Your task to perform on an android device: Clear the shopping cart on bestbuy.com. Search for "rayovac triple a" on bestbuy.com, select the first entry, and add it to the cart. Image 0: 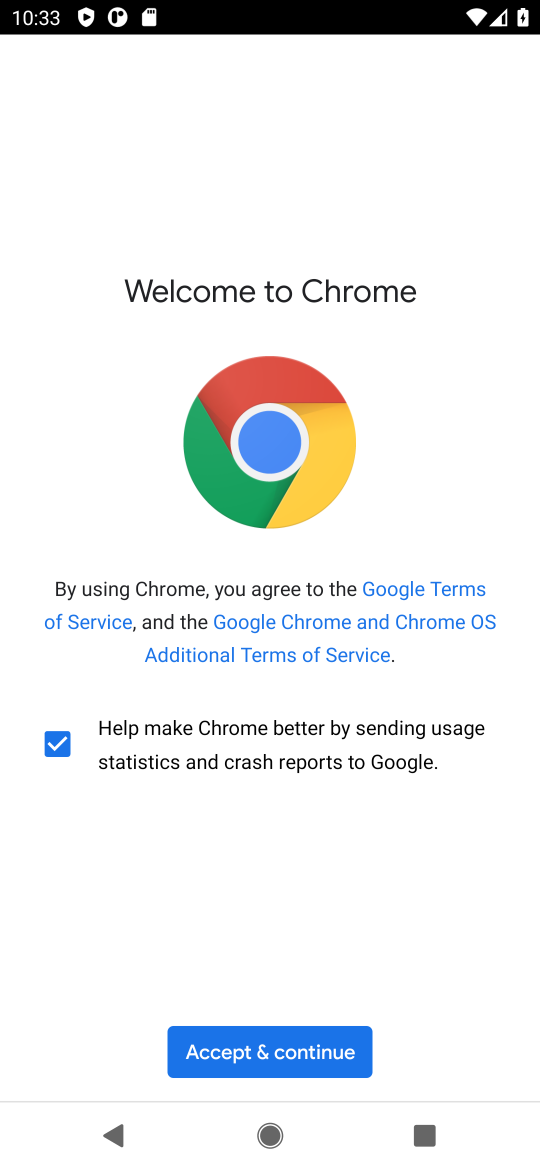
Step 0: press home button
Your task to perform on an android device: Clear the shopping cart on bestbuy.com. Search for "rayovac triple a" on bestbuy.com, select the first entry, and add it to the cart. Image 1: 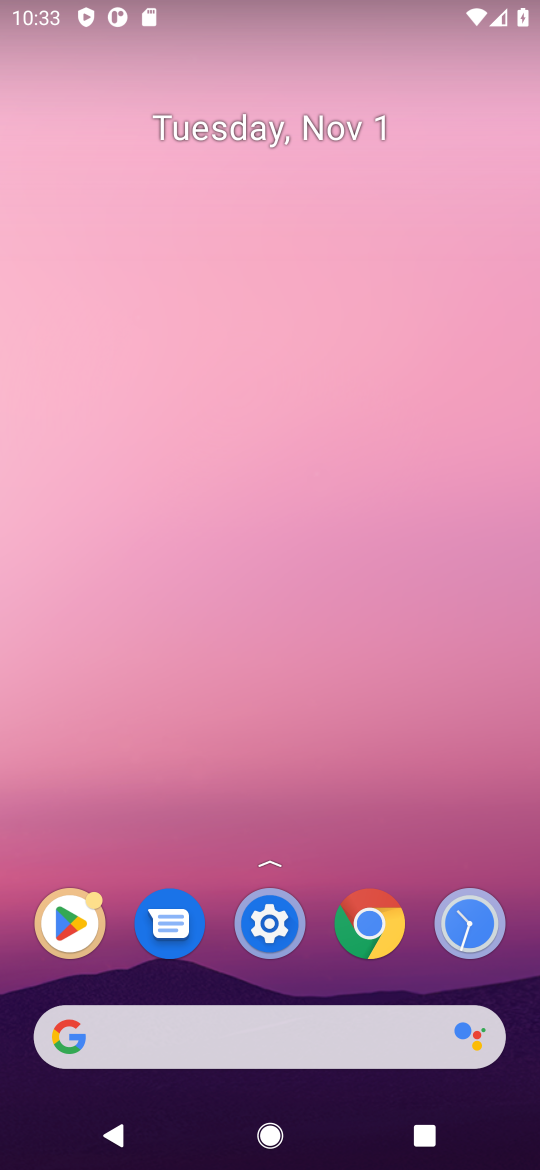
Step 1: click (373, 957)
Your task to perform on an android device: Clear the shopping cart on bestbuy.com. Search for "rayovac triple a" on bestbuy.com, select the first entry, and add it to the cart. Image 2: 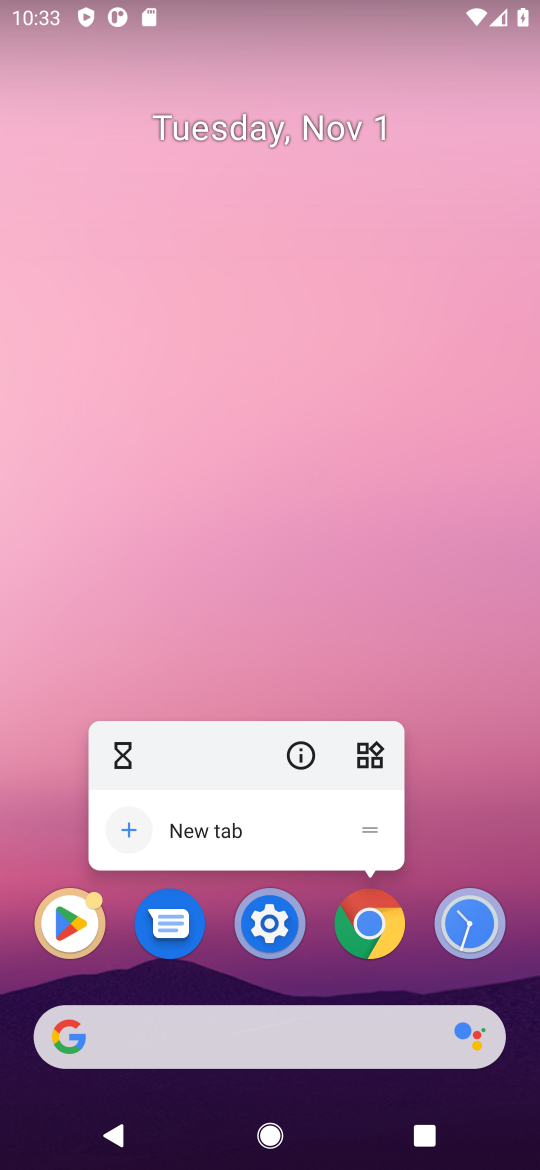
Step 2: click (381, 918)
Your task to perform on an android device: Clear the shopping cart on bestbuy.com. Search for "rayovac triple a" on bestbuy.com, select the first entry, and add it to the cart. Image 3: 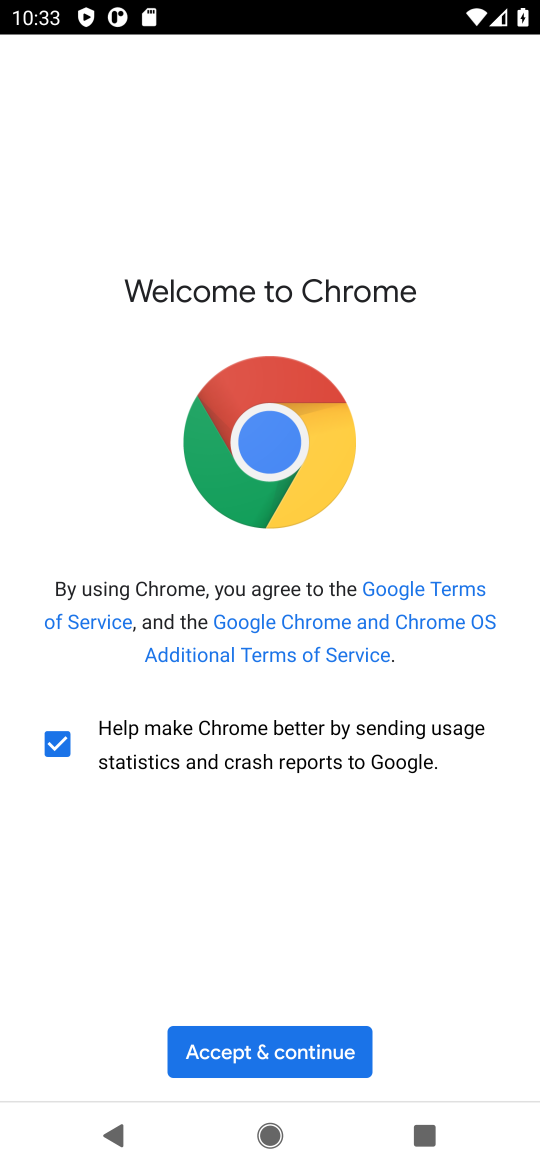
Step 3: click (287, 1038)
Your task to perform on an android device: Clear the shopping cart on bestbuy.com. Search for "rayovac triple a" on bestbuy.com, select the first entry, and add it to the cart. Image 4: 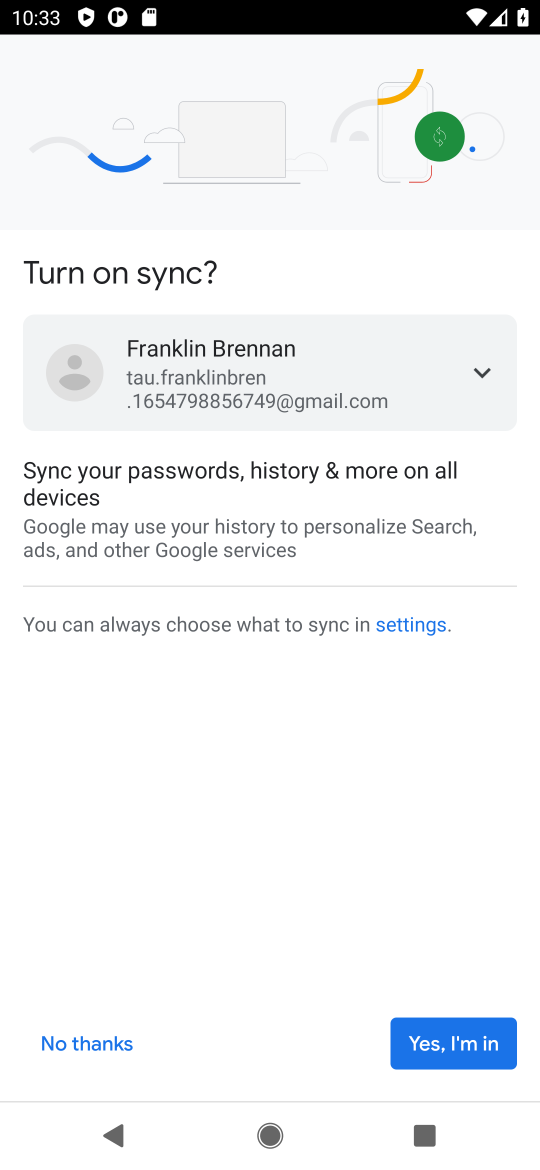
Step 4: click (412, 1040)
Your task to perform on an android device: Clear the shopping cart on bestbuy.com. Search for "rayovac triple a" on bestbuy.com, select the first entry, and add it to the cart. Image 5: 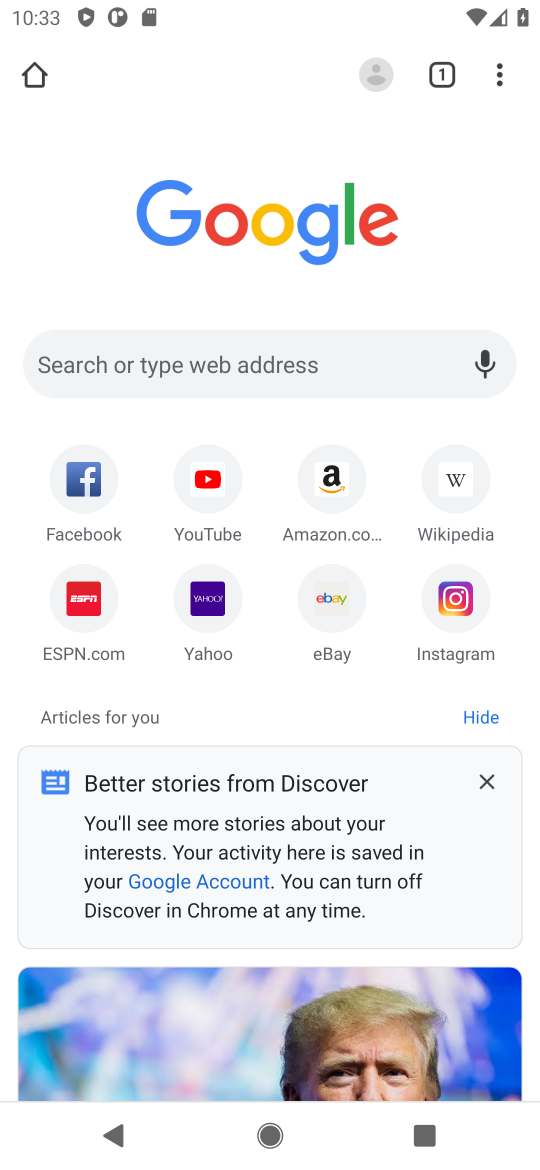
Step 5: click (294, 366)
Your task to perform on an android device: Clear the shopping cart on bestbuy.com. Search for "rayovac triple a" on bestbuy.com, select the first entry, and add it to the cart. Image 6: 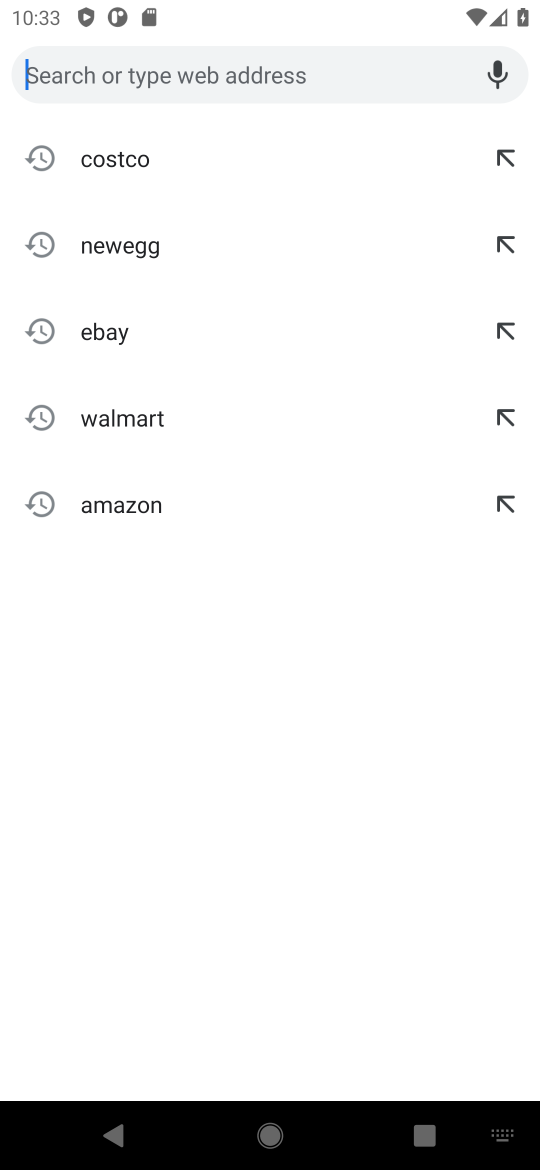
Step 6: type "bestbuy.com"
Your task to perform on an android device: Clear the shopping cart on bestbuy.com. Search for "rayovac triple a" on bestbuy.com, select the first entry, and add it to the cart. Image 7: 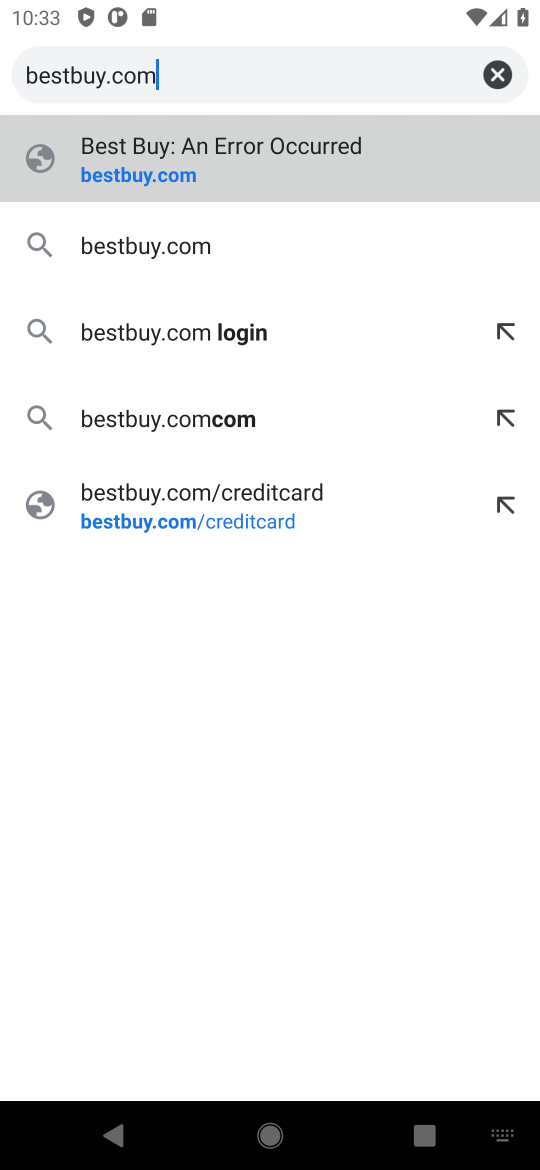
Step 7: click (237, 134)
Your task to perform on an android device: Clear the shopping cart on bestbuy.com. Search for "rayovac triple a" on bestbuy.com, select the first entry, and add it to the cart. Image 8: 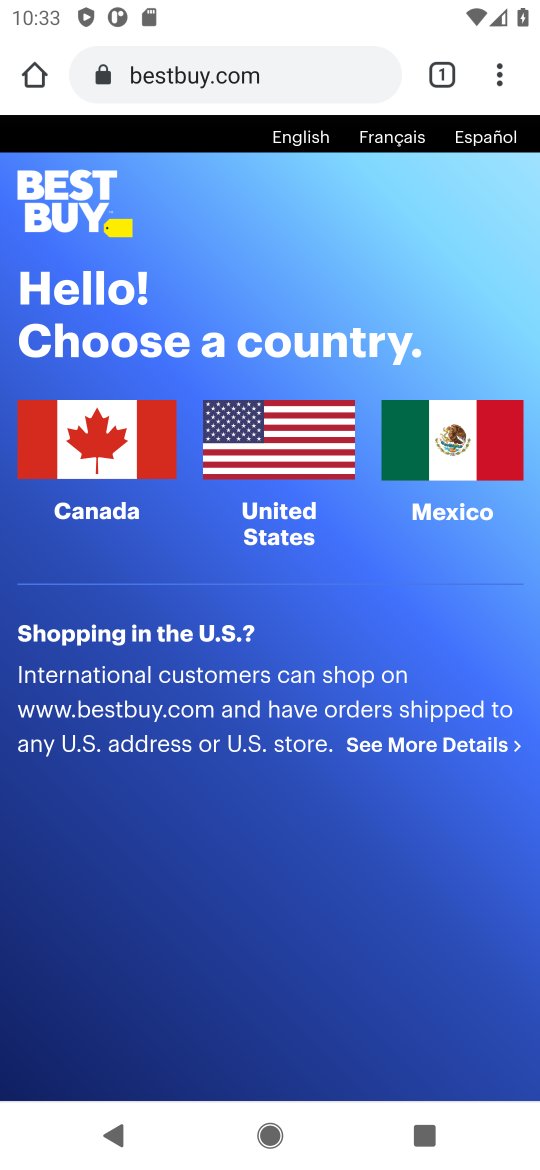
Step 8: click (281, 476)
Your task to perform on an android device: Clear the shopping cart on bestbuy.com. Search for "rayovac triple a" on bestbuy.com, select the first entry, and add it to the cart. Image 9: 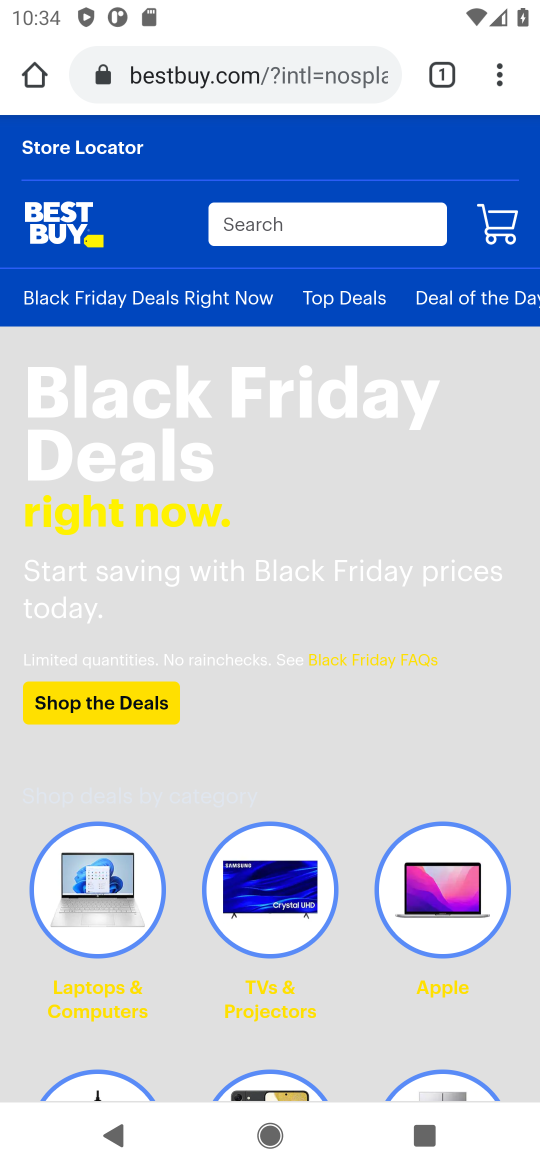
Step 9: click (318, 230)
Your task to perform on an android device: Clear the shopping cart on bestbuy.com. Search for "rayovac triple a" on bestbuy.com, select the first entry, and add it to the cart. Image 10: 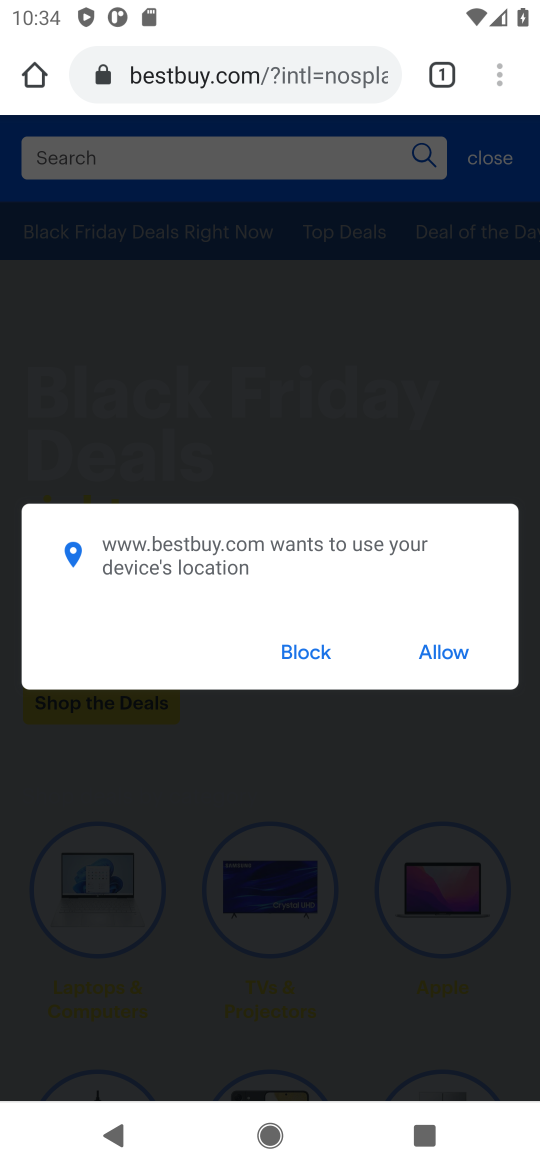
Step 10: click (333, 651)
Your task to perform on an android device: Clear the shopping cart on bestbuy.com. Search for "rayovac triple a" on bestbuy.com, select the first entry, and add it to the cart. Image 11: 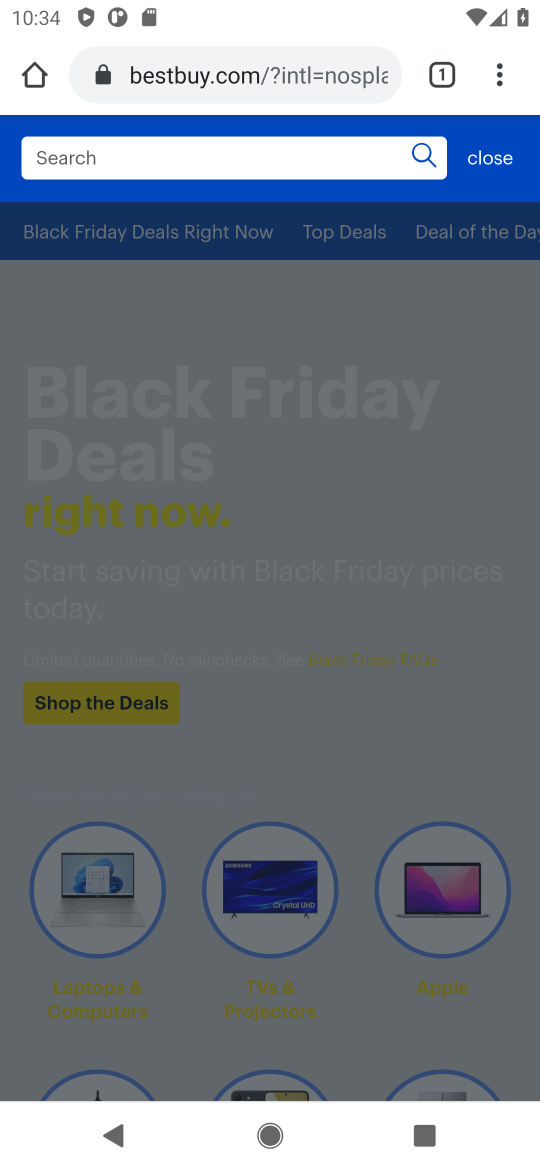
Step 11: click (290, 165)
Your task to perform on an android device: Clear the shopping cart on bestbuy.com. Search for "rayovac triple a" on bestbuy.com, select the first entry, and add it to the cart. Image 12: 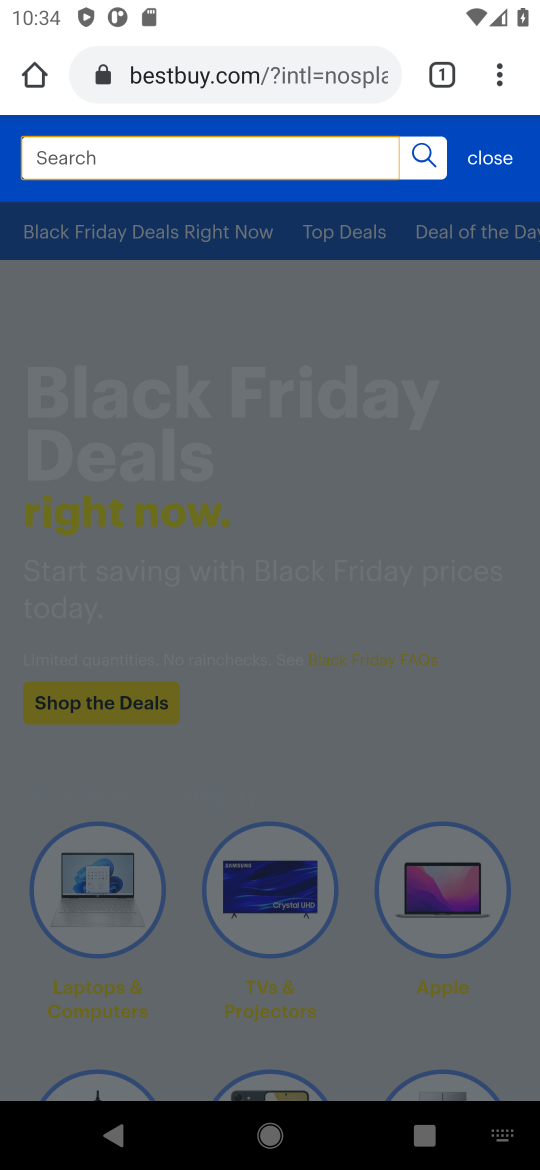
Step 12: type "rayovac triple"
Your task to perform on an android device: Clear the shopping cart on bestbuy.com. Search for "rayovac triple a" on bestbuy.com, select the first entry, and add it to the cart. Image 13: 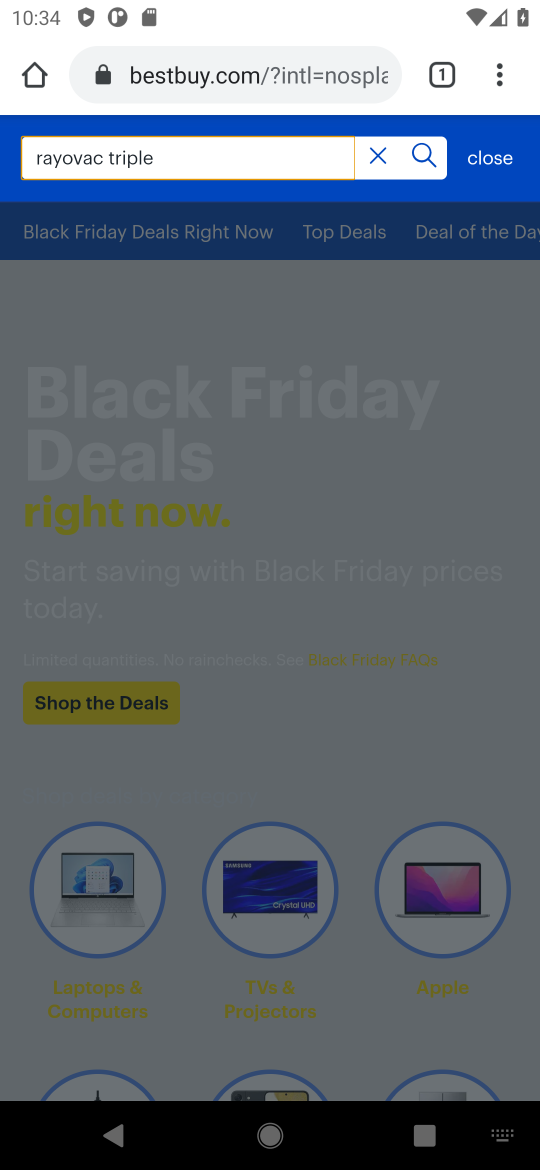
Step 13: press enter
Your task to perform on an android device: Clear the shopping cart on bestbuy.com. Search for "rayovac triple a" on bestbuy.com, select the first entry, and add it to the cart. Image 14: 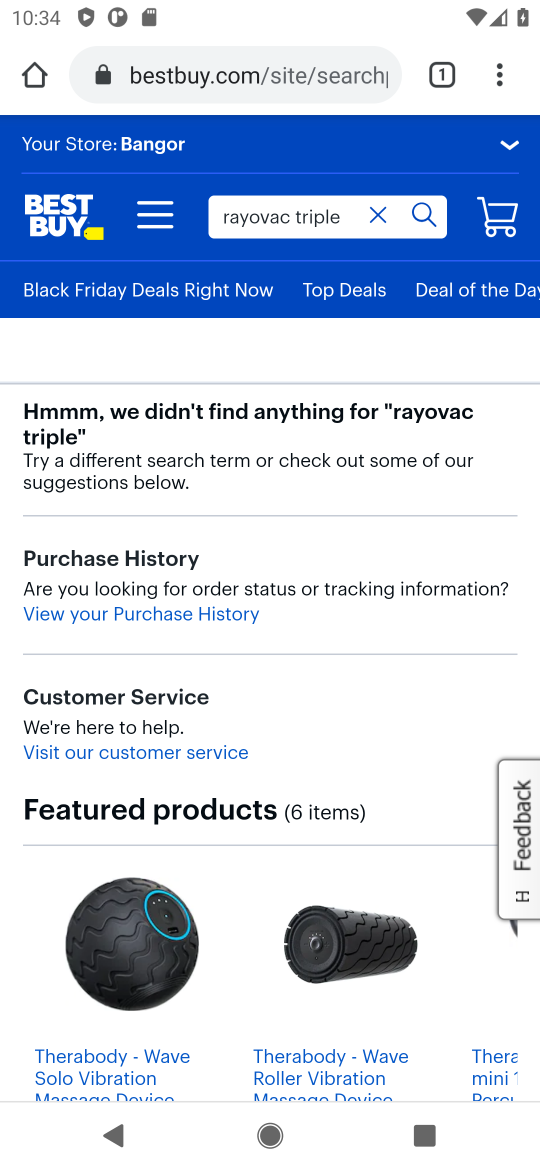
Step 14: task complete